Your task to perform on an android device: Open Google Chrome and click the shortcut for Amazon.com Image 0: 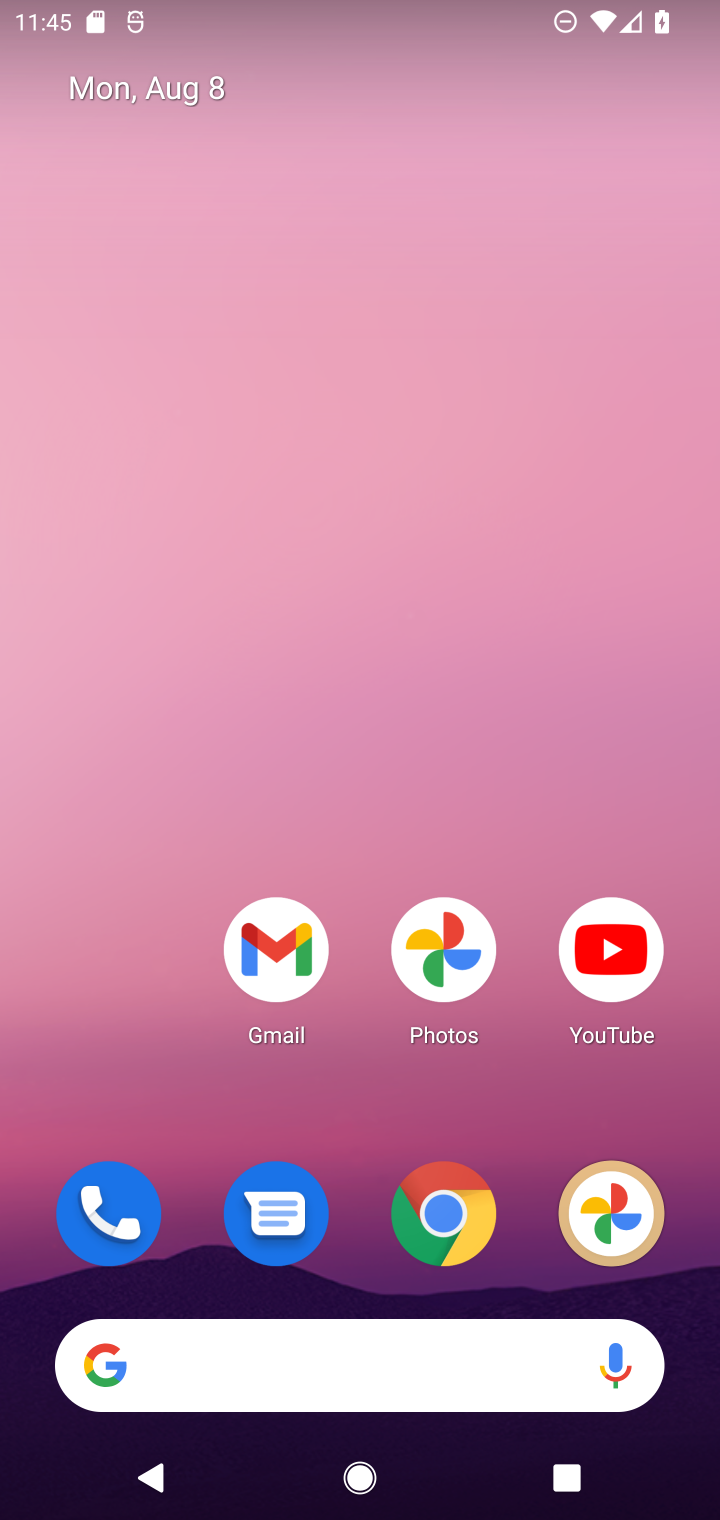
Step 0: press home button
Your task to perform on an android device: Open Google Chrome and click the shortcut for Amazon.com Image 1: 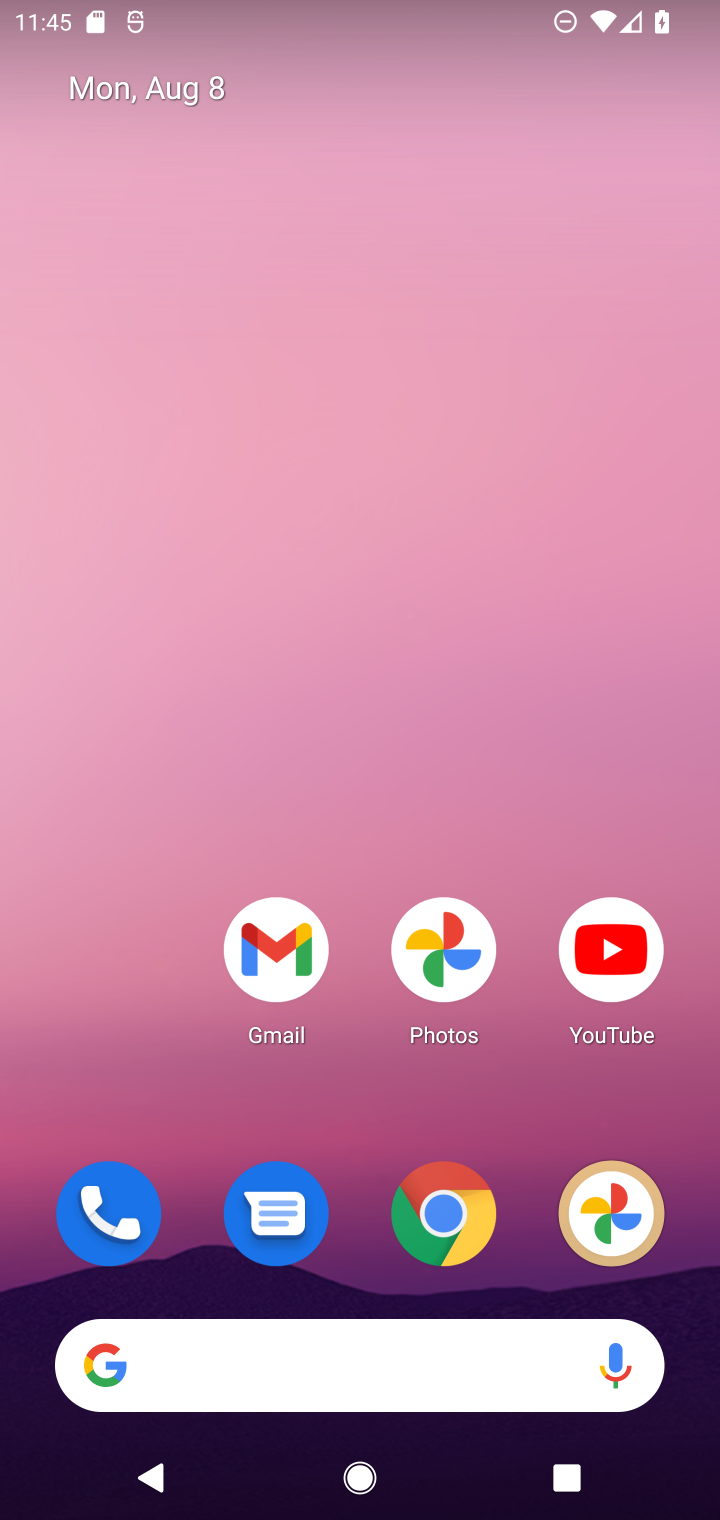
Step 1: drag from (358, 1143) to (385, 181)
Your task to perform on an android device: Open Google Chrome and click the shortcut for Amazon.com Image 2: 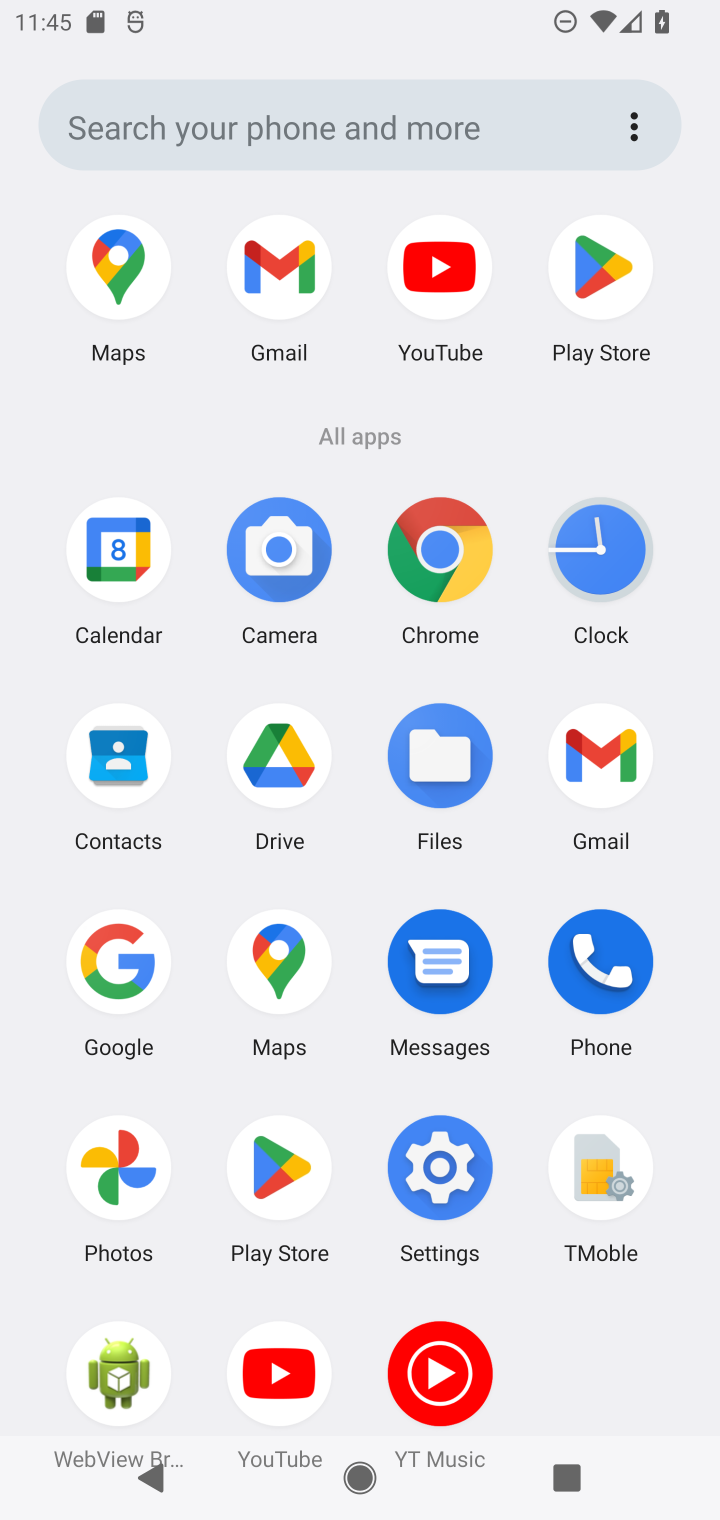
Step 2: click (436, 532)
Your task to perform on an android device: Open Google Chrome and click the shortcut for Amazon.com Image 3: 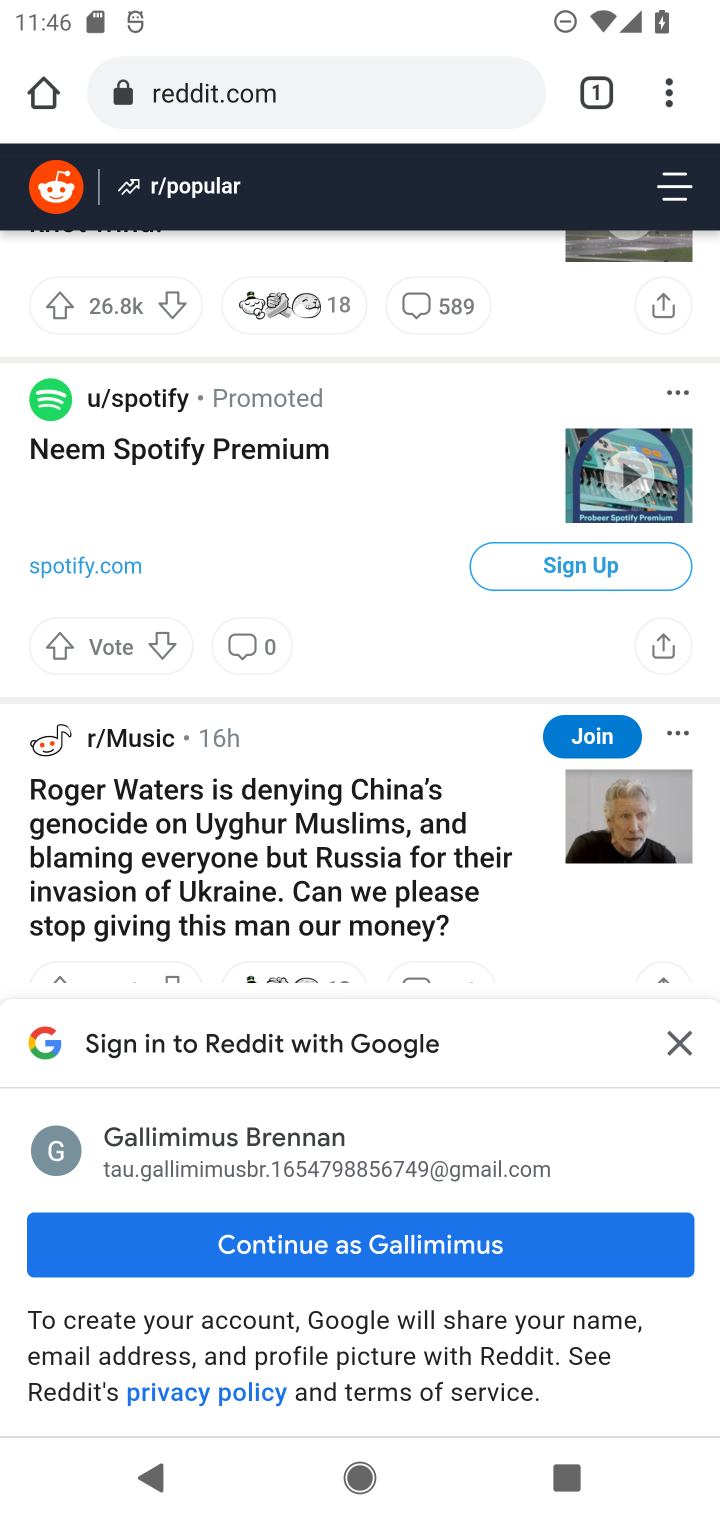
Step 3: click (599, 93)
Your task to perform on an android device: Open Google Chrome and click the shortcut for Amazon.com Image 4: 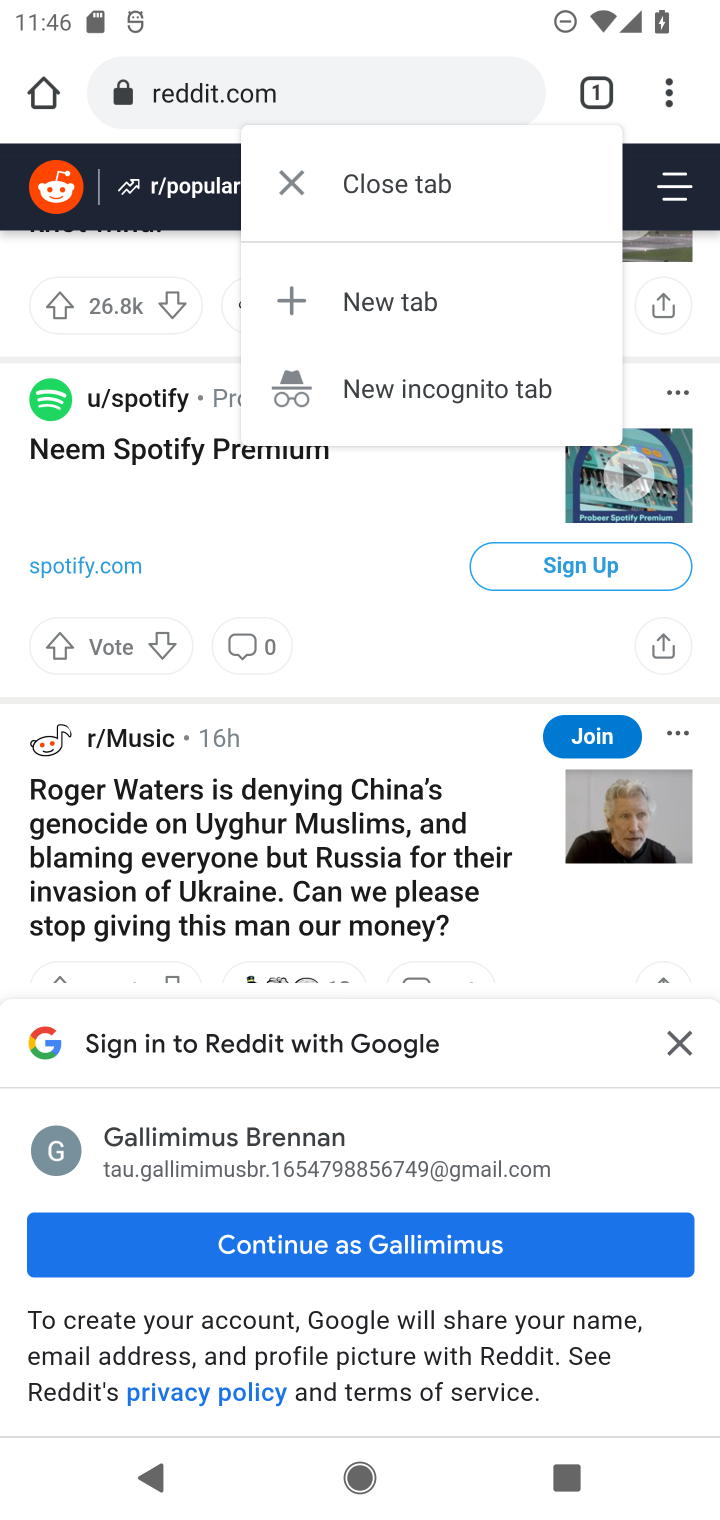
Step 4: click (375, 306)
Your task to perform on an android device: Open Google Chrome and click the shortcut for Amazon.com Image 5: 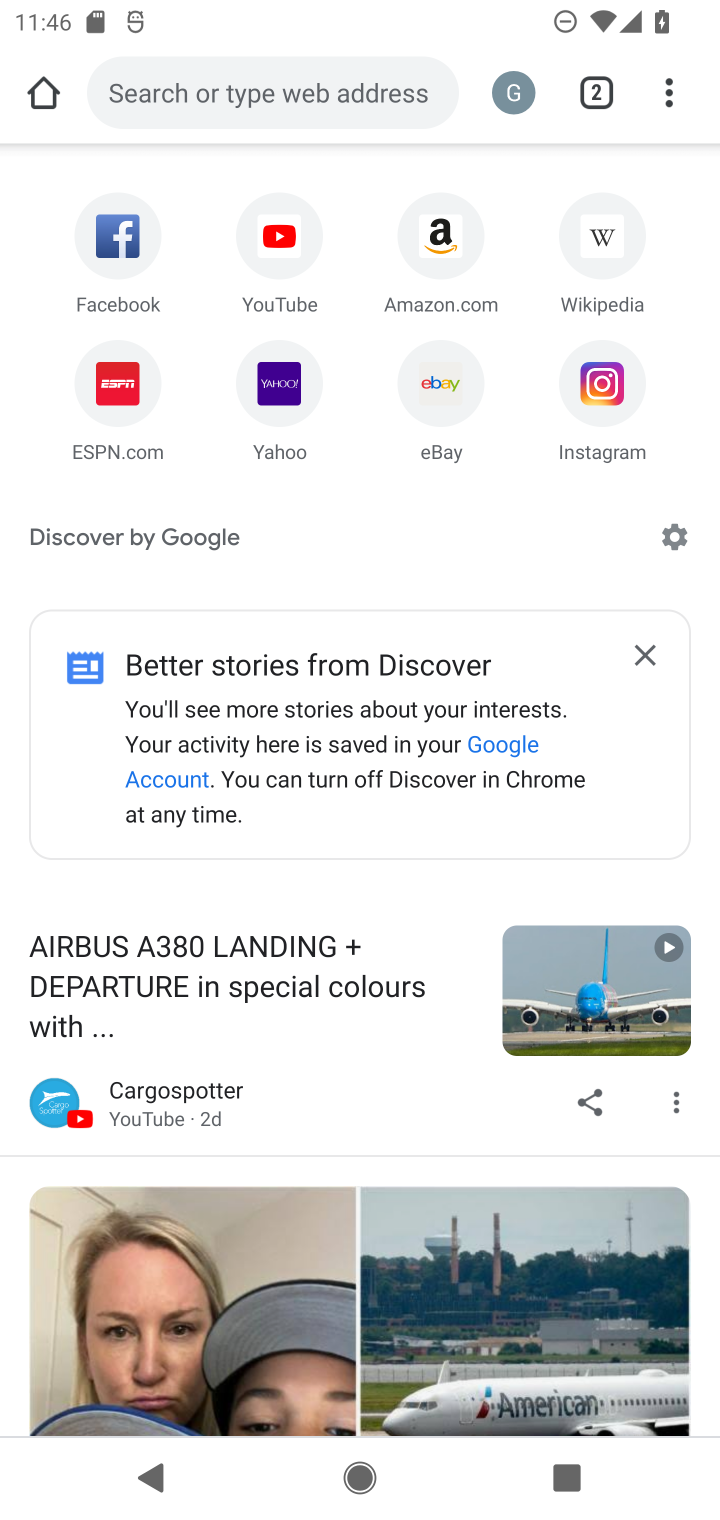
Step 5: click (437, 224)
Your task to perform on an android device: Open Google Chrome and click the shortcut for Amazon.com Image 6: 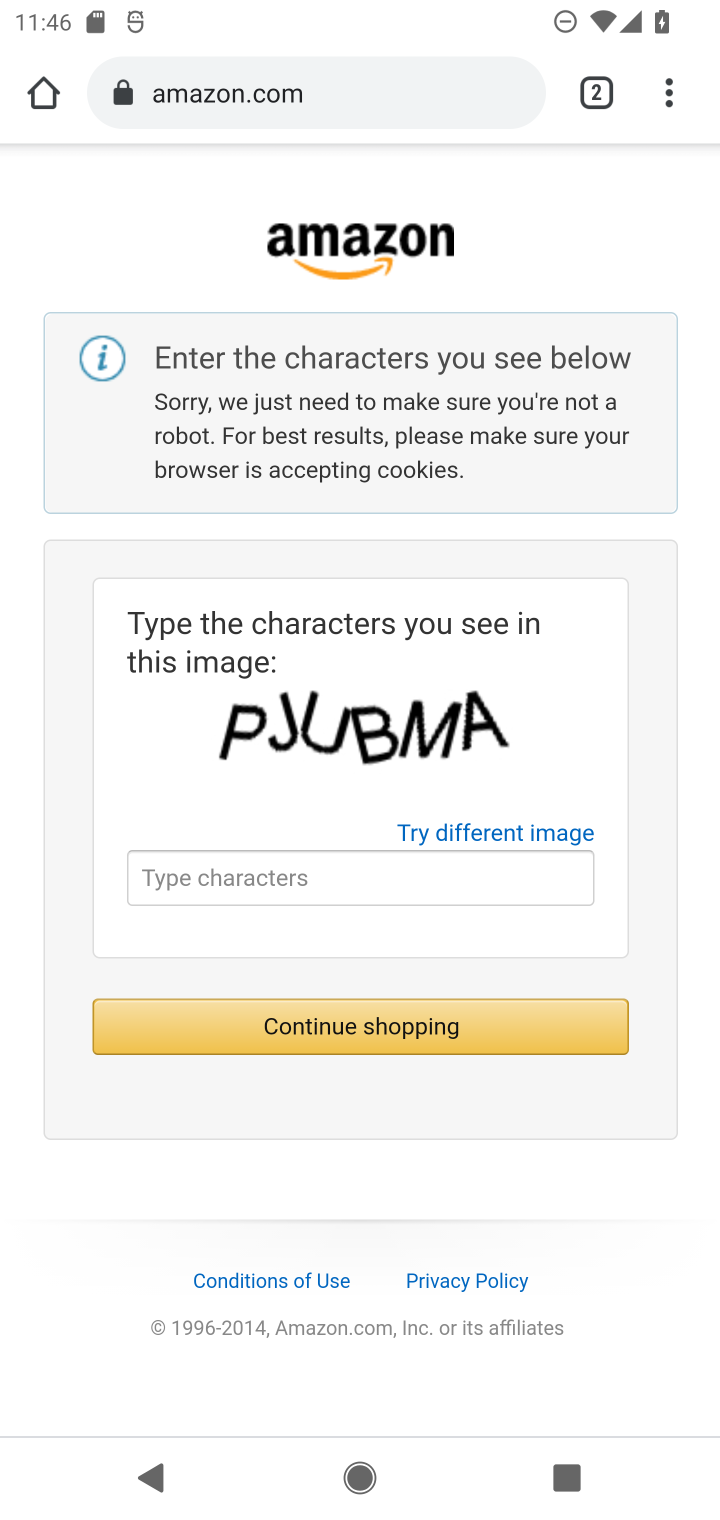
Step 6: task complete